Your task to perform on an android device: turn off airplane mode Image 0: 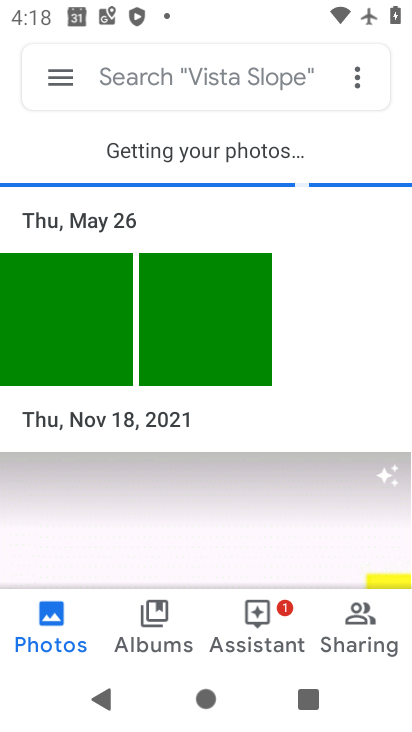
Step 0: press back button
Your task to perform on an android device: turn off airplane mode Image 1: 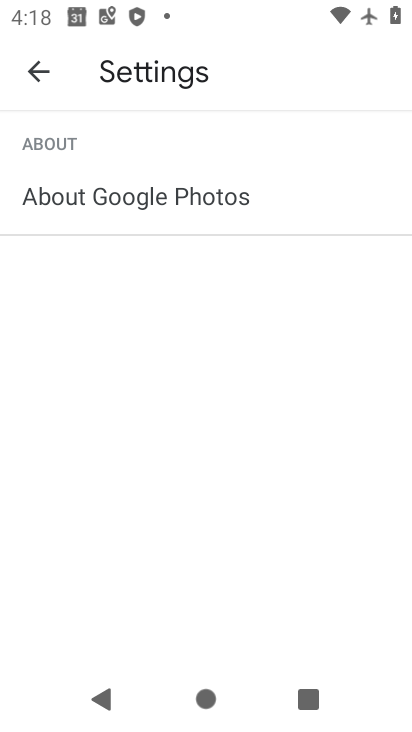
Step 1: press home button
Your task to perform on an android device: turn off airplane mode Image 2: 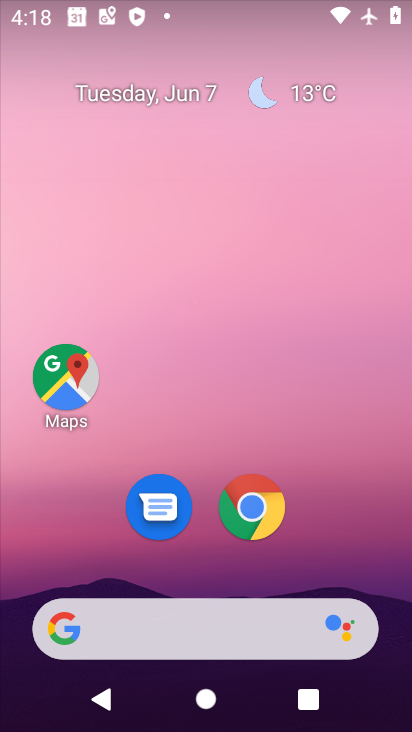
Step 2: drag from (351, 565) to (275, 19)
Your task to perform on an android device: turn off airplane mode Image 3: 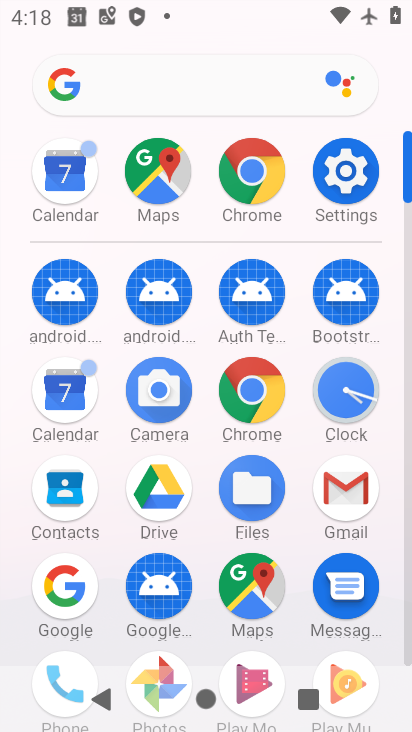
Step 3: click (345, 165)
Your task to perform on an android device: turn off airplane mode Image 4: 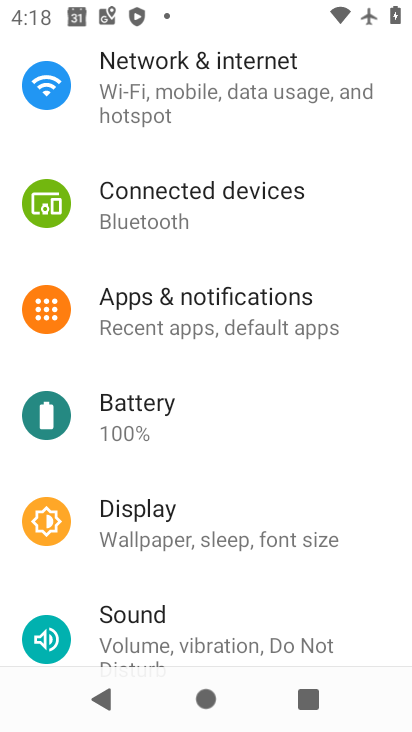
Step 4: drag from (335, 180) to (331, 603)
Your task to perform on an android device: turn off airplane mode Image 5: 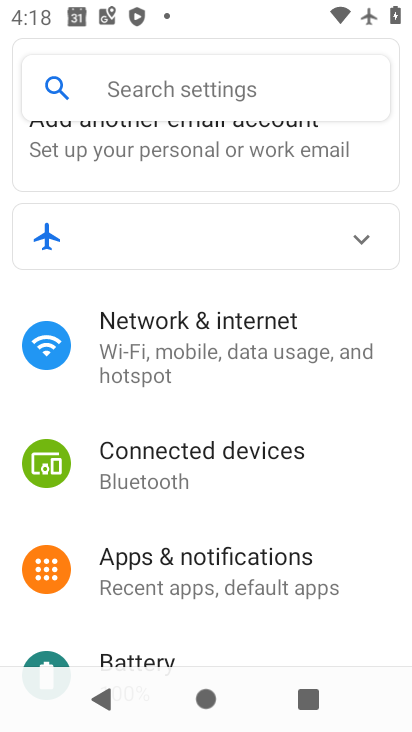
Step 5: click (215, 337)
Your task to perform on an android device: turn off airplane mode Image 6: 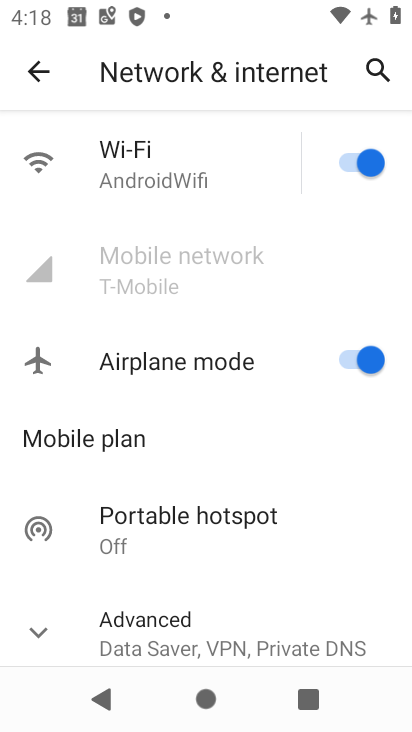
Step 6: click (344, 365)
Your task to perform on an android device: turn off airplane mode Image 7: 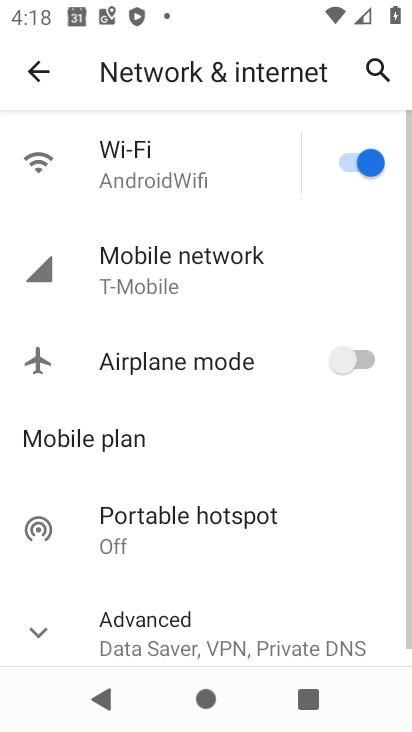
Step 7: click (38, 640)
Your task to perform on an android device: turn off airplane mode Image 8: 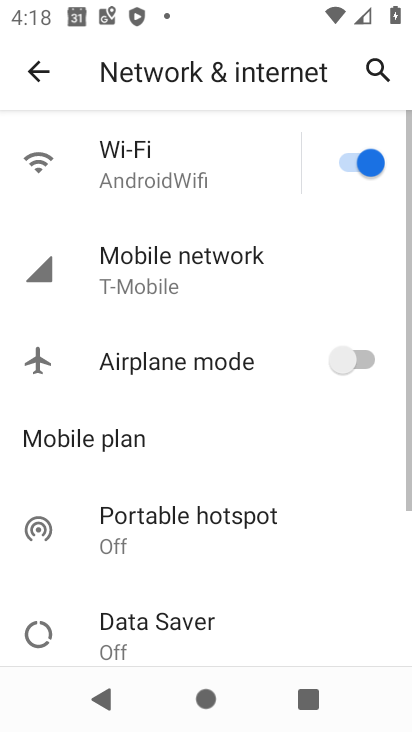
Step 8: task complete